Your task to perform on an android device: Go to notification settings Image 0: 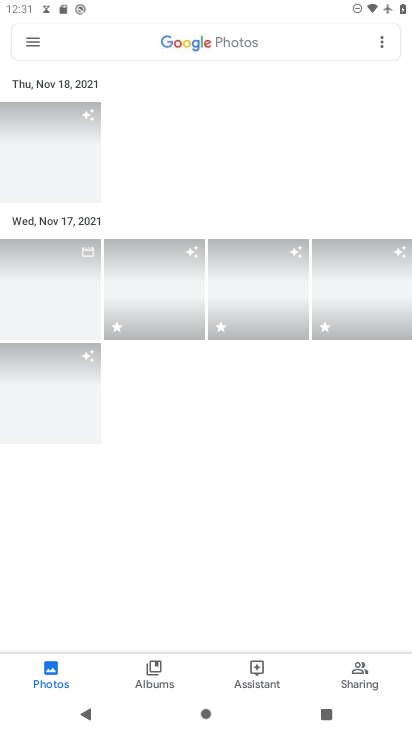
Step 0: press home button
Your task to perform on an android device: Go to notification settings Image 1: 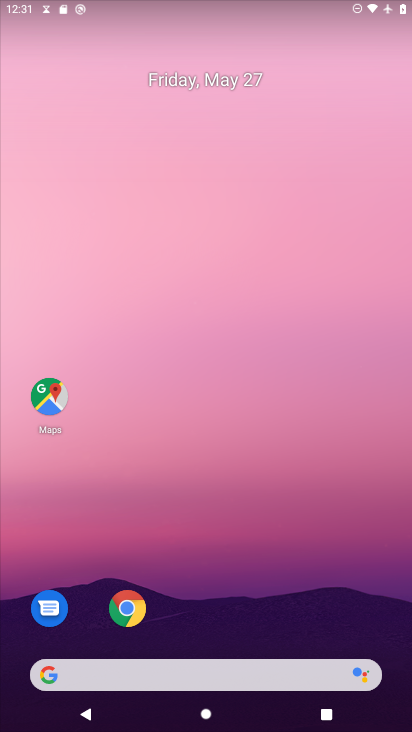
Step 1: drag from (229, 649) to (259, 74)
Your task to perform on an android device: Go to notification settings Image 2: 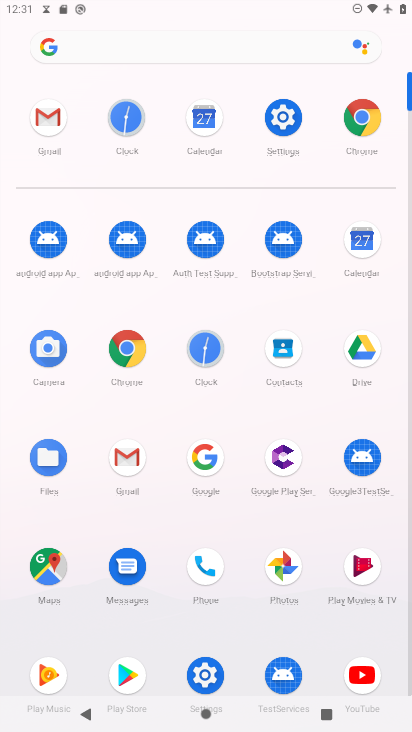
Step 2: click (284, 119)
Your task to perform on an android device: Go to notification settings Image 3: 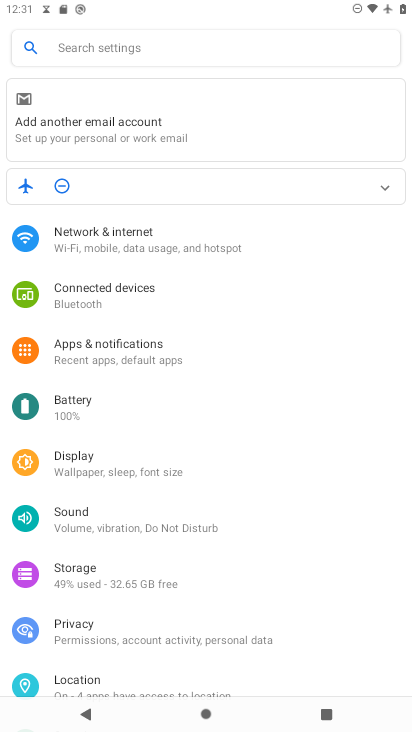
Step 3: click (113, 351)
Your task to perform on an android device: Go to notification settings Image 4: 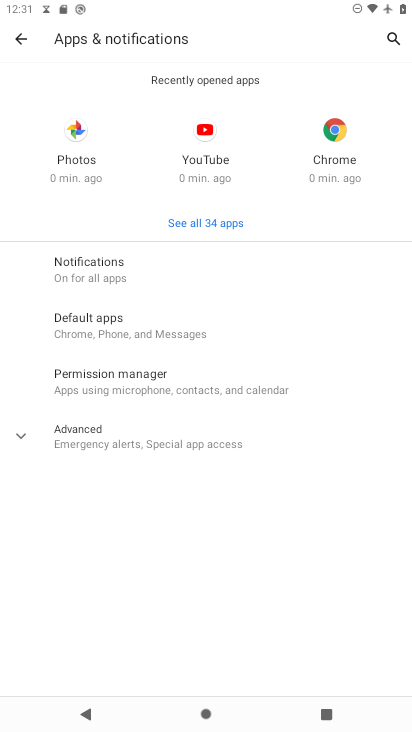
Step 4: click (92, 267)
Your task to perform on an android device: Go to notification settings Image 5: 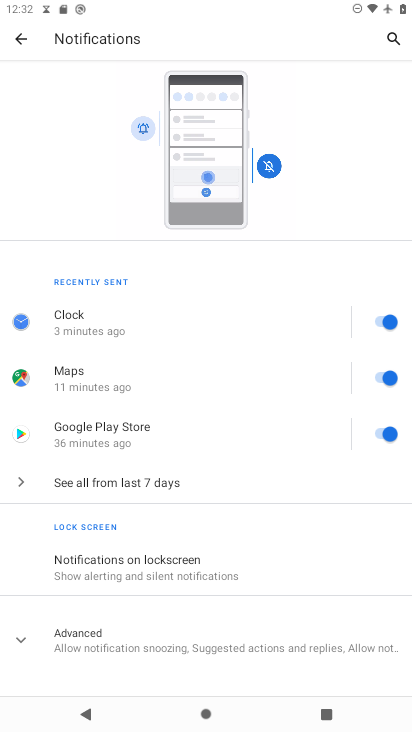
Step 5: task complete